Your task to perform on an android device: Go to display settings Image 0: 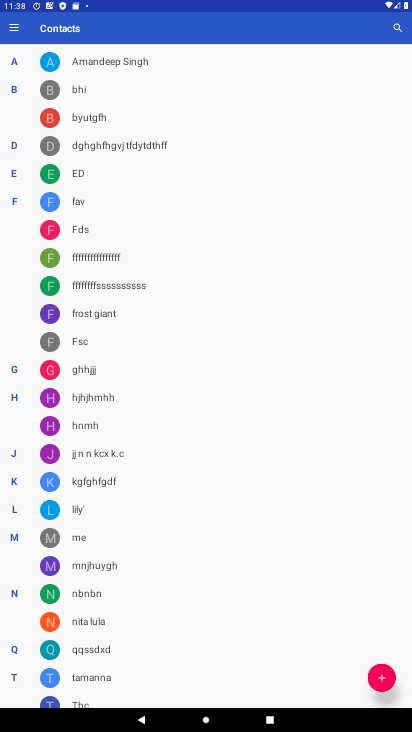
Step 0: press back button
Your task to perform on an android device: Go to display settings Image 1: 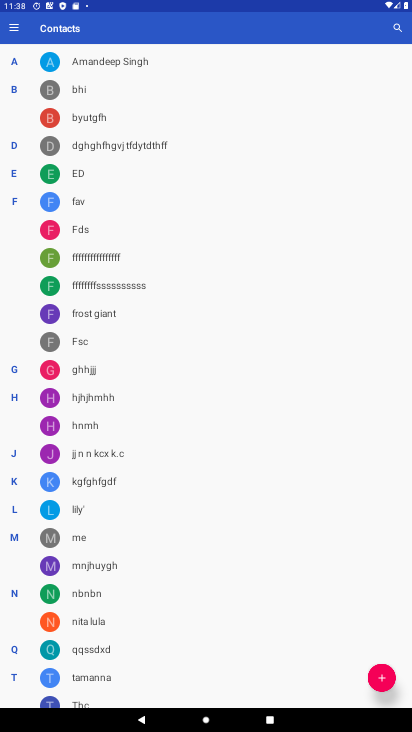
Step 1: press back button
Your task to perform on an android device: Go to display settings Image 2: 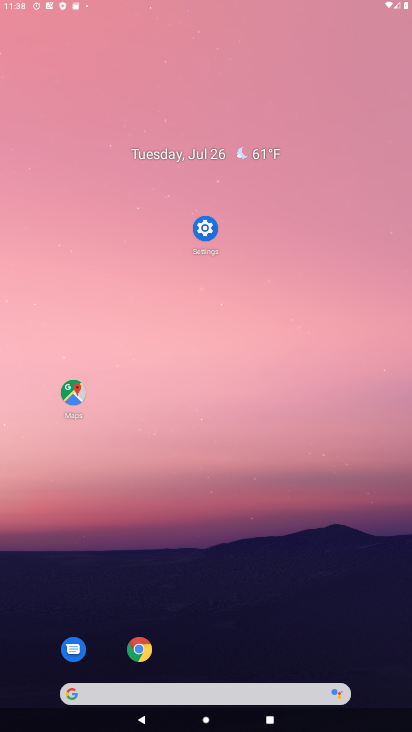
Step 2: press back button
Your task to perform on an android device: Go to display settings Image 3: 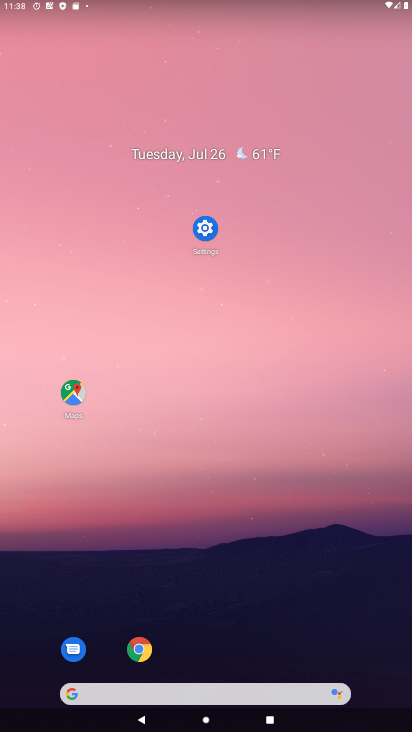
Step 3: drag from (186, 643) to (225, 216)
Your task to perform on an android device: Go to display settings Image 4: 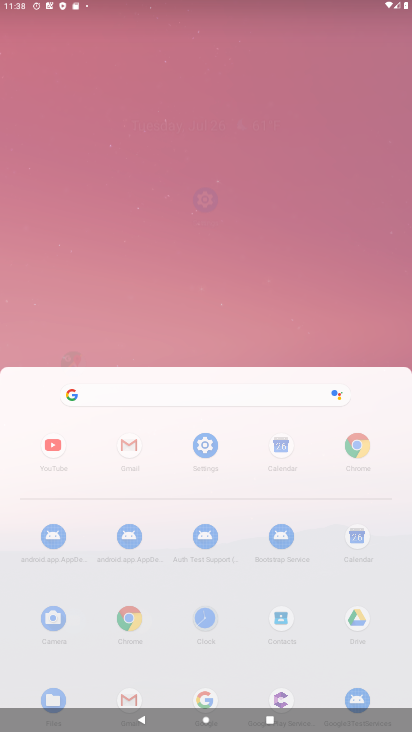
Step 4: drag from (251, 386) to (195, 167)
Your task to perform on an android device: Go to display settings Image 5: 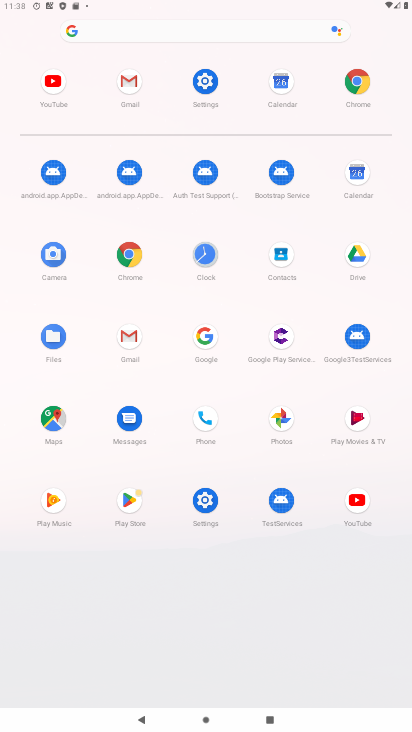
Step 5: drag from (224, 490) to (206, 92)
Your task to perform on an android device: Go to display settings Image 6: 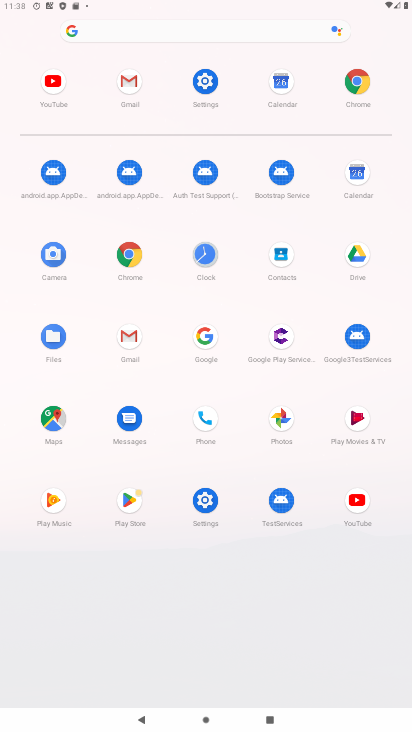
Step 6: click (205, 86)
Your task to perform on an android device: Go to display settings Image 7: 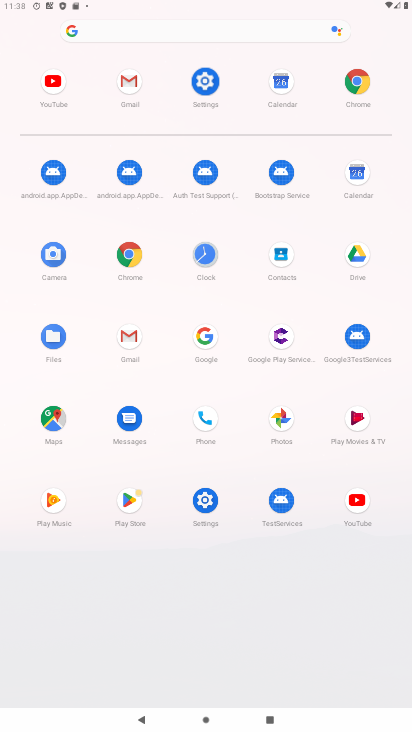
Step 7: click (205, 86)
Your task to perform on an android device: Go to display settings Image 8: 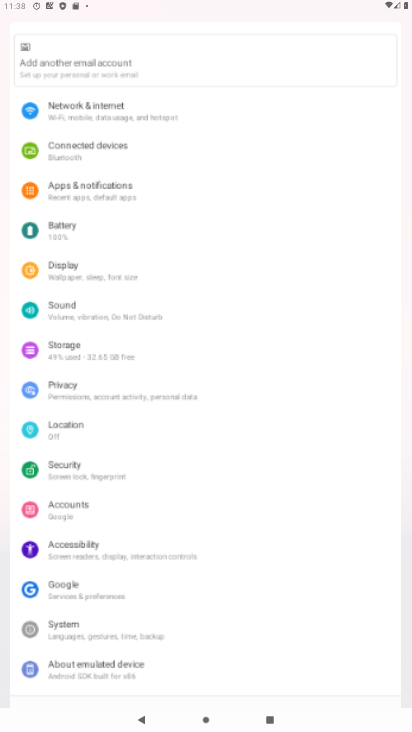
Step 8: click (205, 86)
Your task to perform on an android device: Go to display settings Image 9: 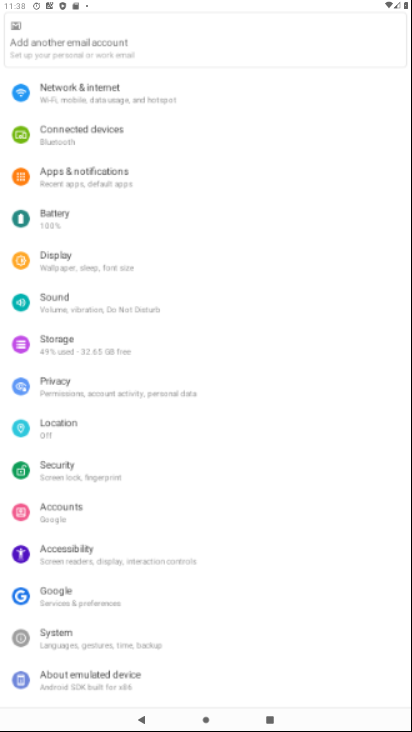
Step 9: click (205, 86)
Your task to perform on an android device: Go to display settings Image 10: 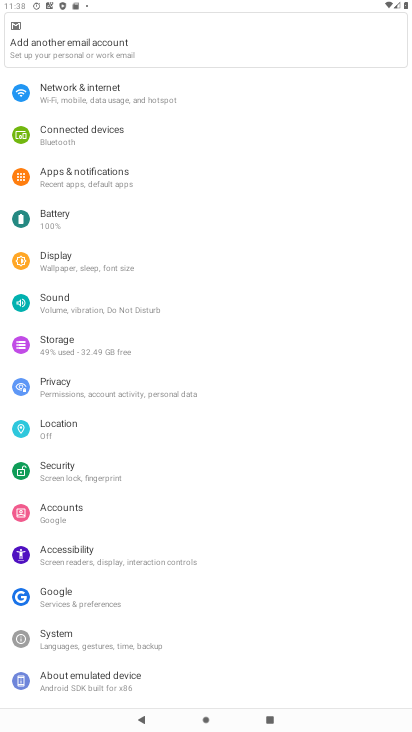
Step 10: click (50, 236)
Your task to perform on an android device: Go to display settings Image 11: 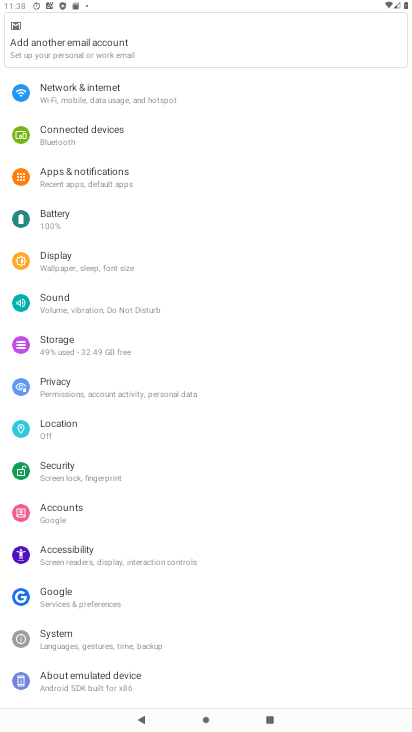
Step 11: click (52, 239)
Your task to perform on an android device: Go to display settings Image 12: 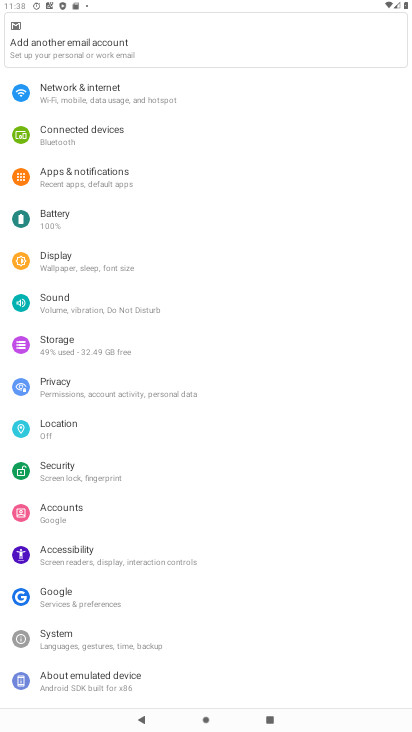
Step 12: click (52, 255)
Your task to perform on an android device: Go to display settings Image 13: 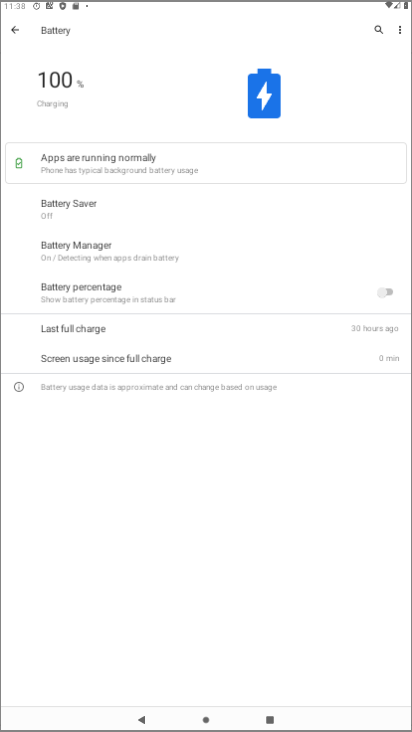
Step 13: click (53, 256)
Your task to perform on an android device: Go to display settings Image 14: 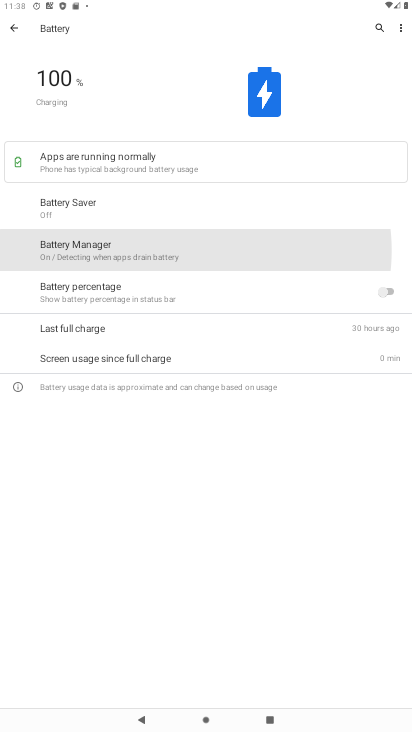
Step 14: click (55, 257)
Your task to perform on an android device: Go to display settings Image 15: 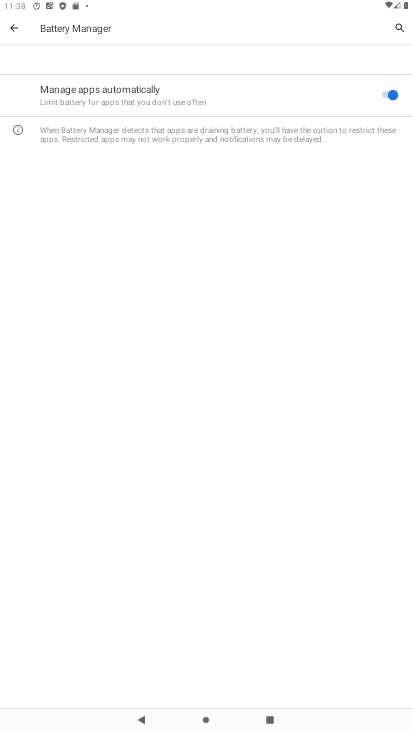
Step 15: task complete